Your task to perform on an android device: Open Google Chrome and click the shortcut for Amazon.com Image 0: 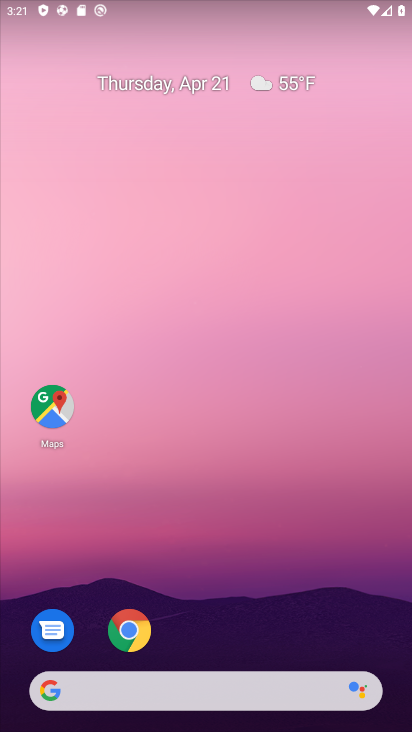
Step 0: click (135, 634)
Your task to perform on an android device: Open Google Chrome and click the shortcut for Amazon.com Image 1: 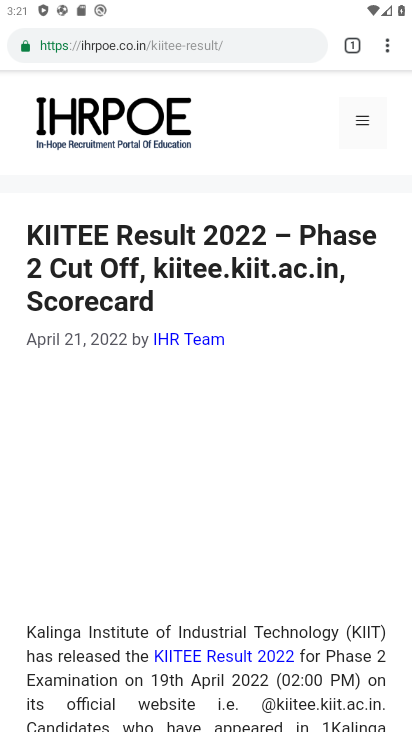
Step 1: click (386, 49)
Your task to perform on an android device: Open Google Chrome and click the shortcut for Amazon.com Image 2: 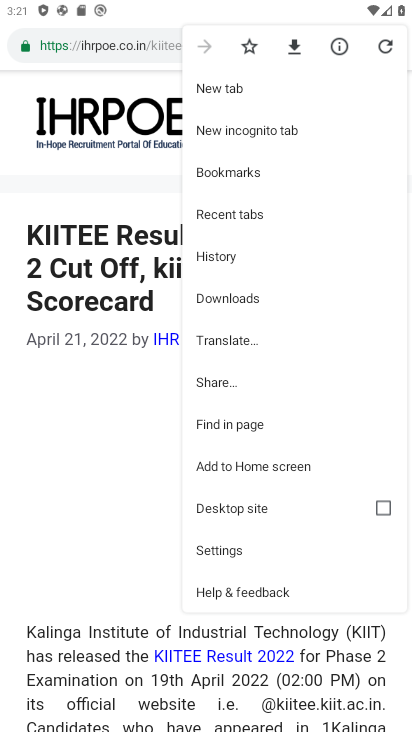
Step 2: click (220, 89)
Your task to perform on an android device: Open Google Chrome and click the shortcut for Amazon.com Image 3: 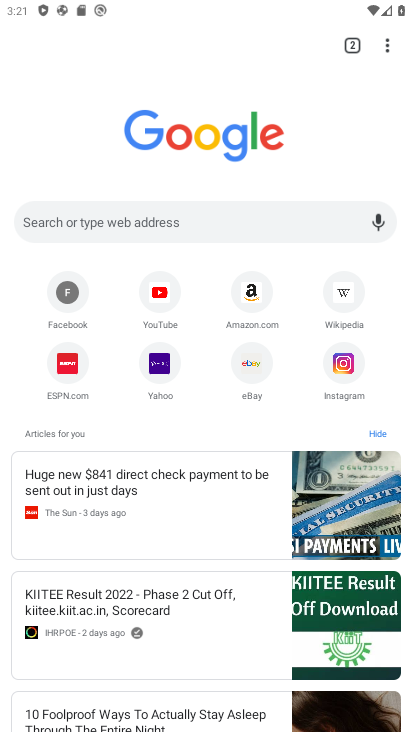
Step 3: click (249, 286)
Your task to perform on an android device: Open Google Chrome and click the shortcut for Amazon.com Image 4: 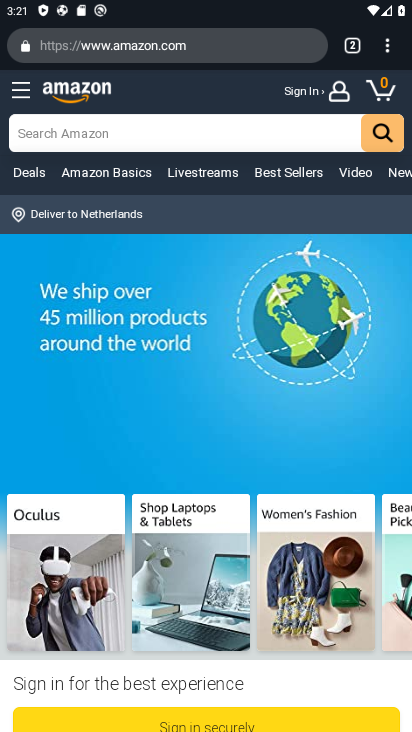
Step 4: task complete